Your task to perform on an android device: Set an alarm for 8am Image 0: 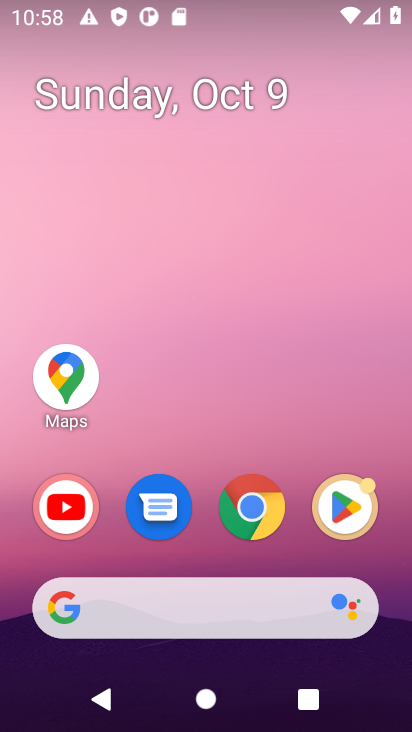
Step 0: drag from (300, 366) to (288, 22)
Your task to perform on an android device: Set an alarm for 8am Image 1: 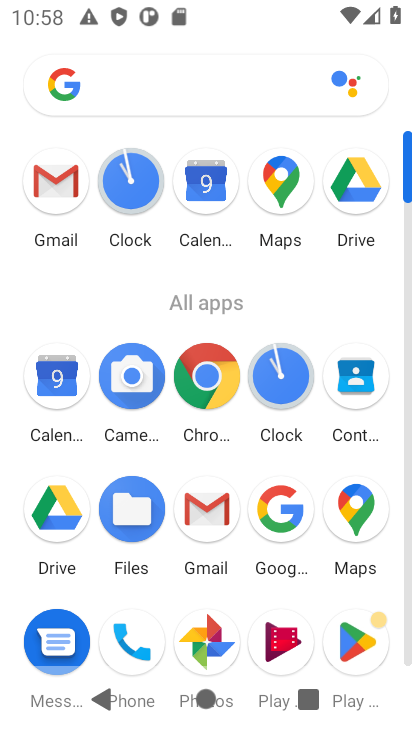
Step 1: click (136, 190)
Your task to perform on an android device: Set an alarm for 8am Image 2: 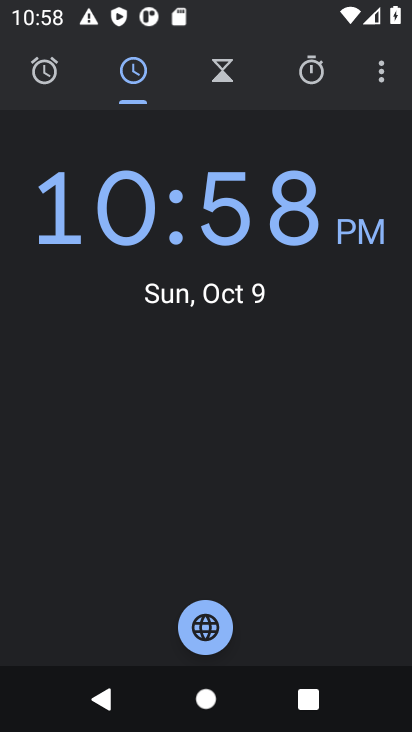
Step 2: click (39, 78)
Your task to perform on an android device: Set an alarm for 8am Image 3: 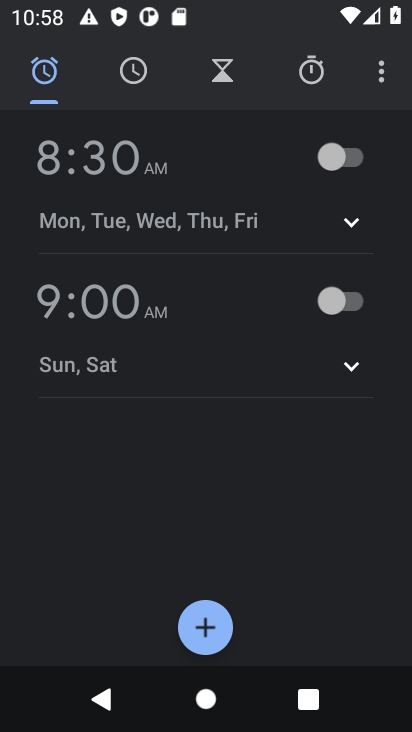
Step 3: click (211, 628)
Your task to perform on an android device: Set an alarm for 8am Image 4: 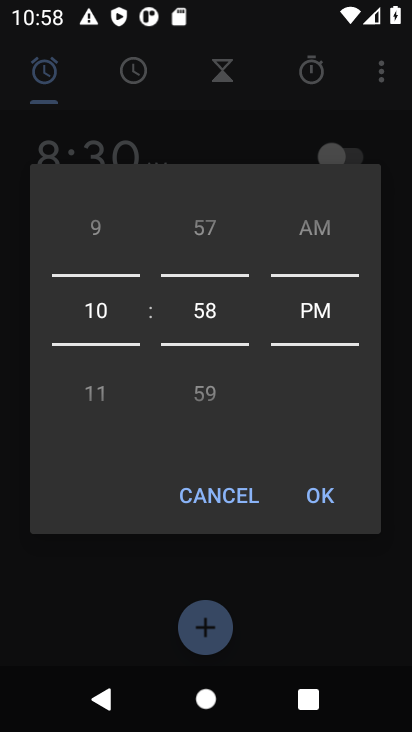
Step 4: click (313, 228)
Your task to perform on an android device: Set an alarm for 8am Image 5: 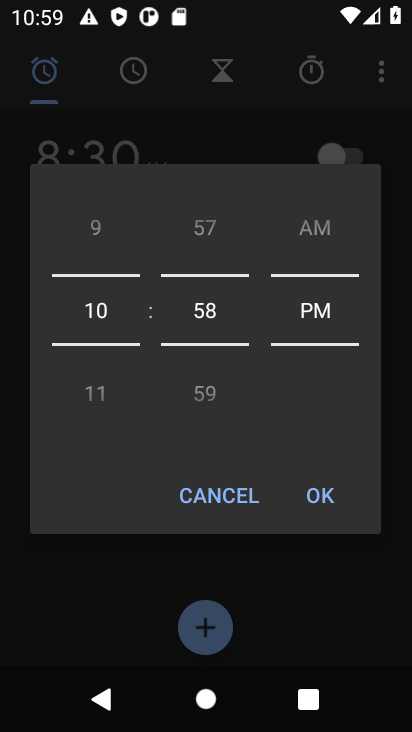
Step 5: click (92, 227)
Your task to perform on an android device: Set an alarm for 8am Image 6: 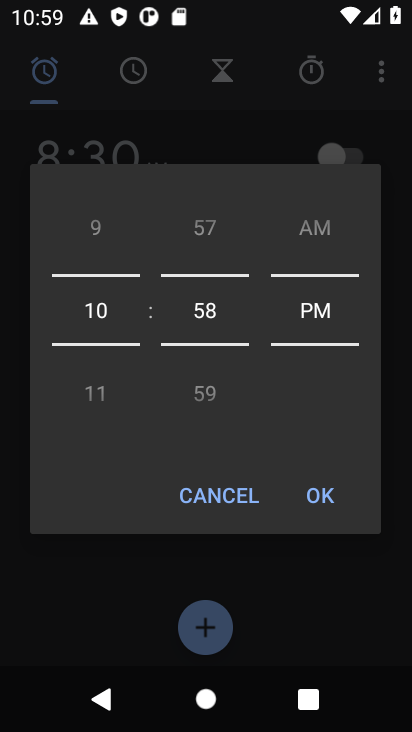
Step 6: click (306, 327)
Your task to perform on an android device: Set an alarm for 8am Image 7: 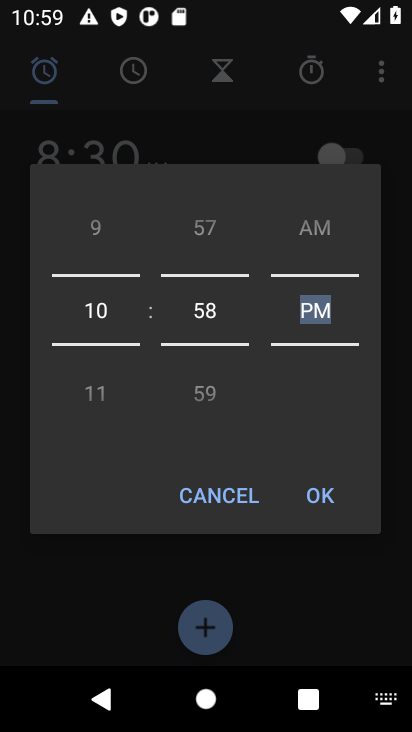
Step 7: click (319, 314)
Your task to perform on an android device: Set an alarm for 8am Image 8: 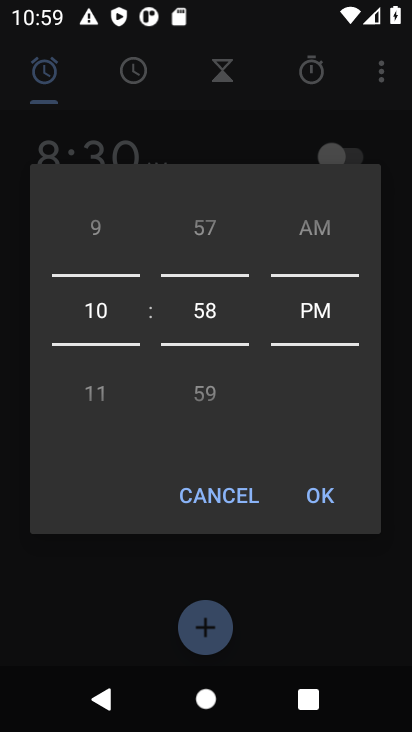
Step 8: drag from (308, 307) to (309, 384)
Your task to perform on an android device: Set an alarm for 8am Image 9: 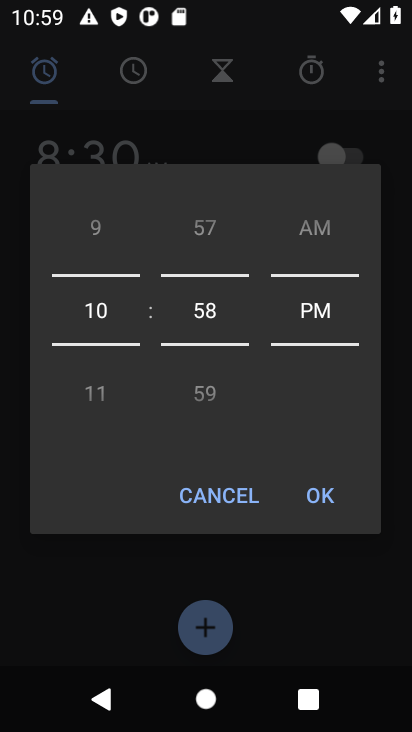
Step 9: drag from (320, 295) to (317, 448)
Your task to perform on an android device: Set an alarm for 8am Image 10: 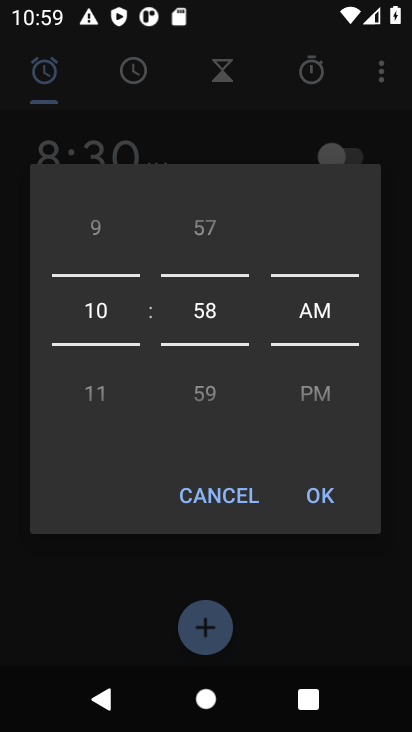
Step 10: drag from (208, 287) to (209, 342)
Your task to perform on an android device: Set an alarm for 8am Image 11: 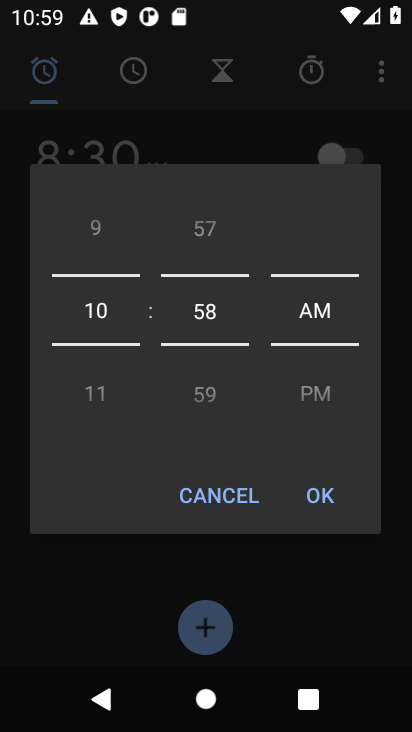
Step 11: drag from (219, 289) to (219, 359)
Your task to perform on an android device: Set an alarm for 8am Image 12: 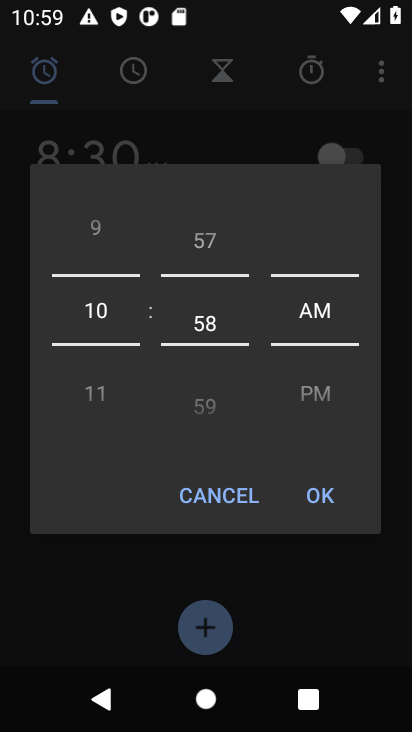
Step 12: drag from (218, 290) to (220, 399)
Your task to perform on an android device: Set an alarm for 8am Image 13: 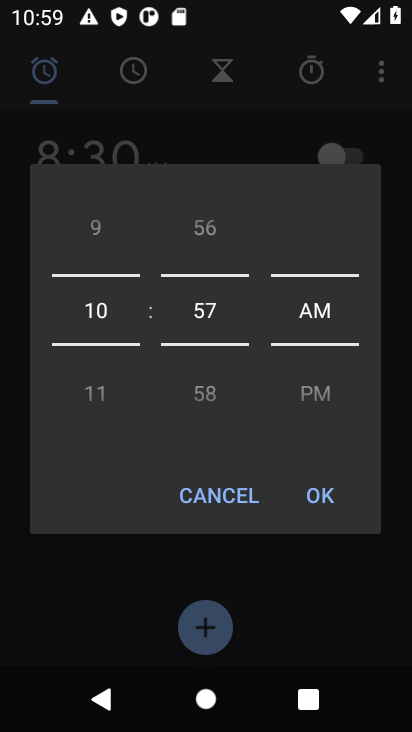
Step 13: drag from (214, 392) to (213, 259)
Your task to perform on an android device: Set an alarm for 8am Image 14: 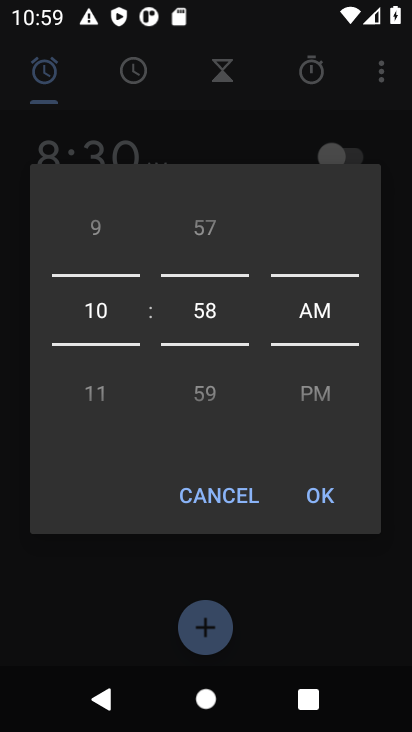
Step 14: drag from (201, 395) to (205, 224)
Your task to perform on an android device: Set an alarm for 8am Image 15: 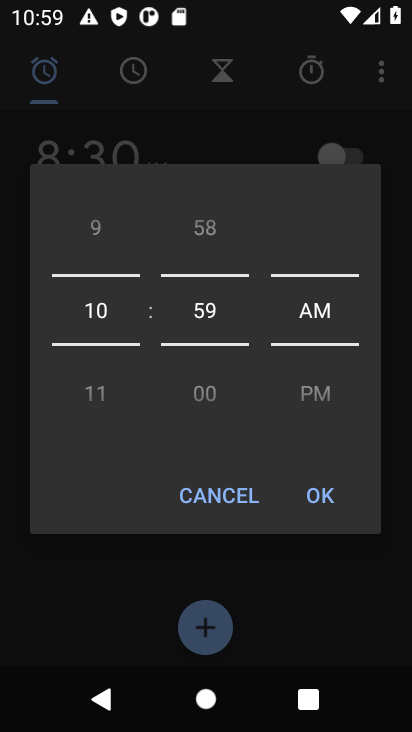
Step 15: drag from (221, 403) to (232, 275)
Your task to perform on an android device: Set an alarm for 8am Image 16: 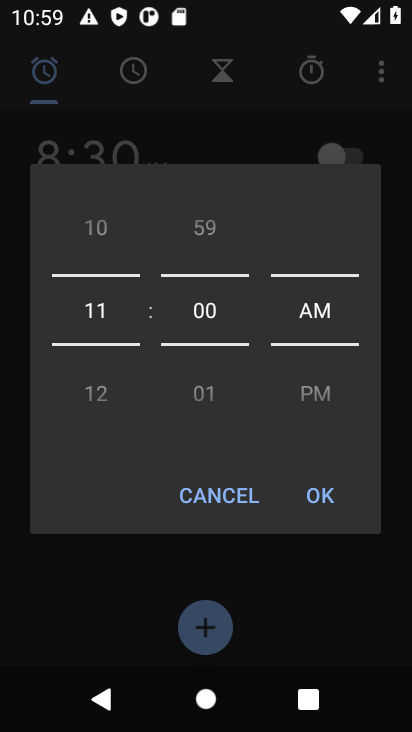
Step 16: drag from (104, 293) to (99, 442)
Your task to perform on an android device: Set an alarm for 8am Image 17: 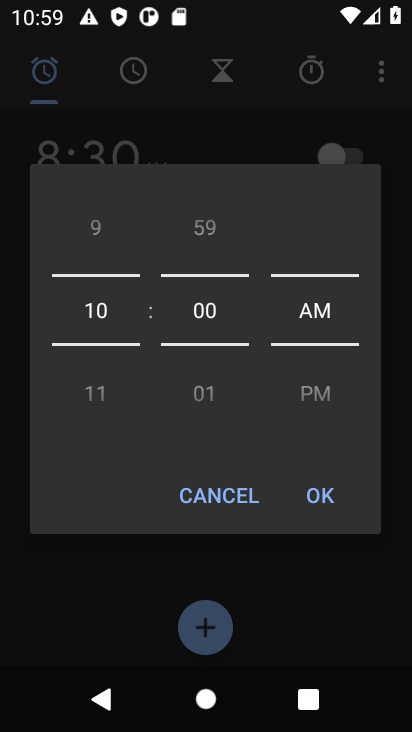
Step 17: drag from (113, 296) to (117, 437)
Your task to perform on an android device: Set an alarm for 8am Image 18: 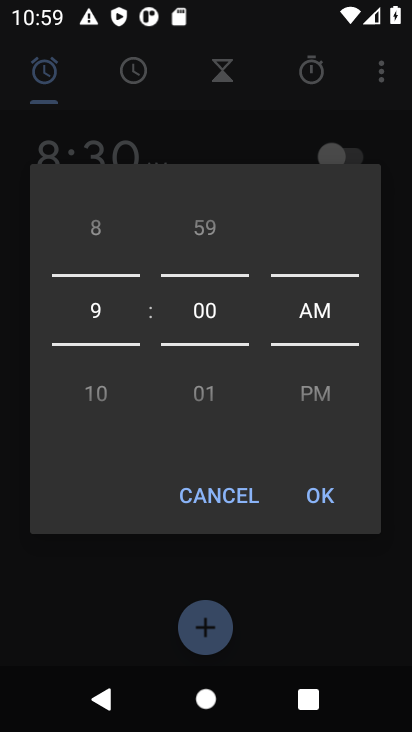
Step 18: drag from (114, 263) to (112, 422)
Your task to perform on an android device: Set an alarm for 8am Image 19: 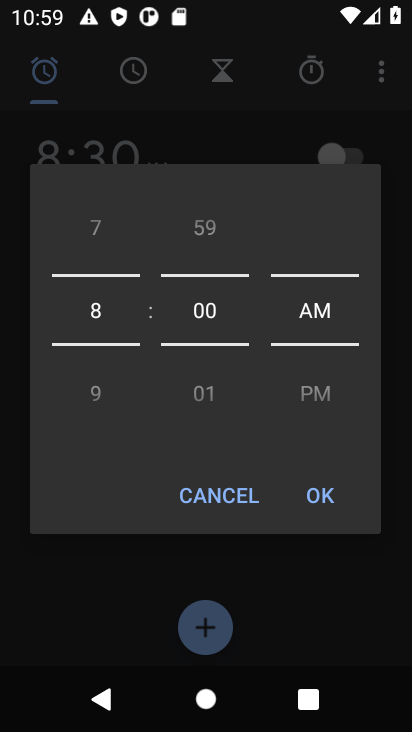
Step 19: click (326, 495)
Your task to perform on an android device: Set an alarm for 8am Image 20: 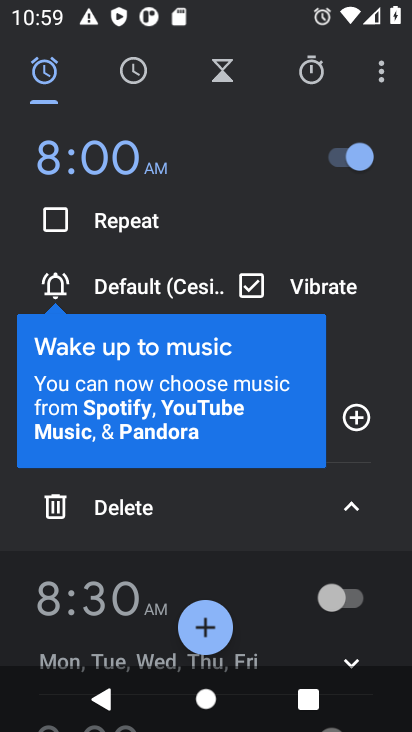
Step 20: task complete